Your task to perform on an android device: allow cookies in the chrome app Image 0: 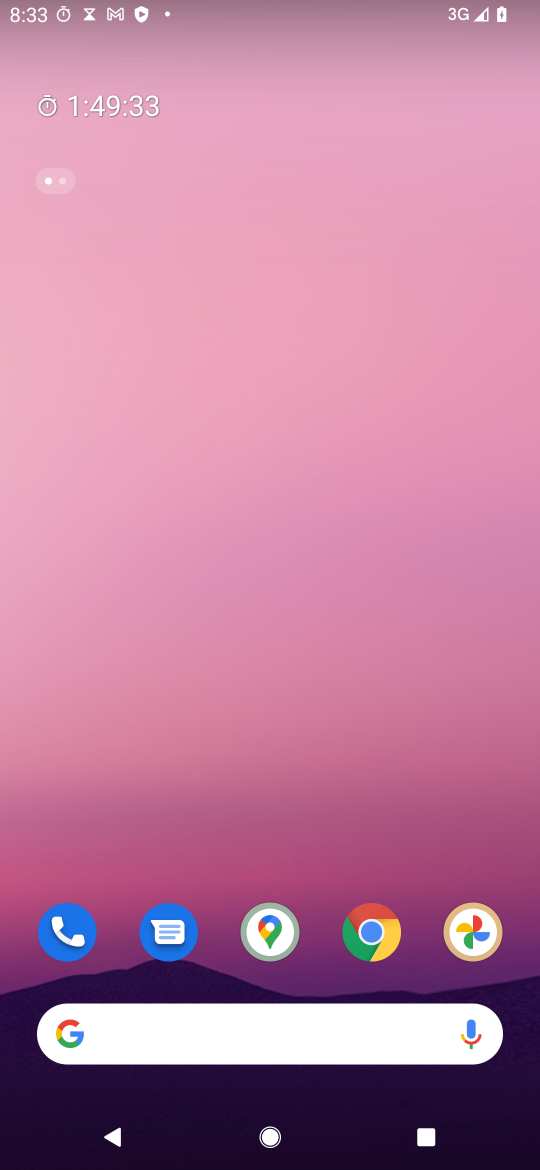
Step 0: drag from (318, 916) to (437, 110)
Your task to perform on an android device: allow cookies in the chrome app Image 1: 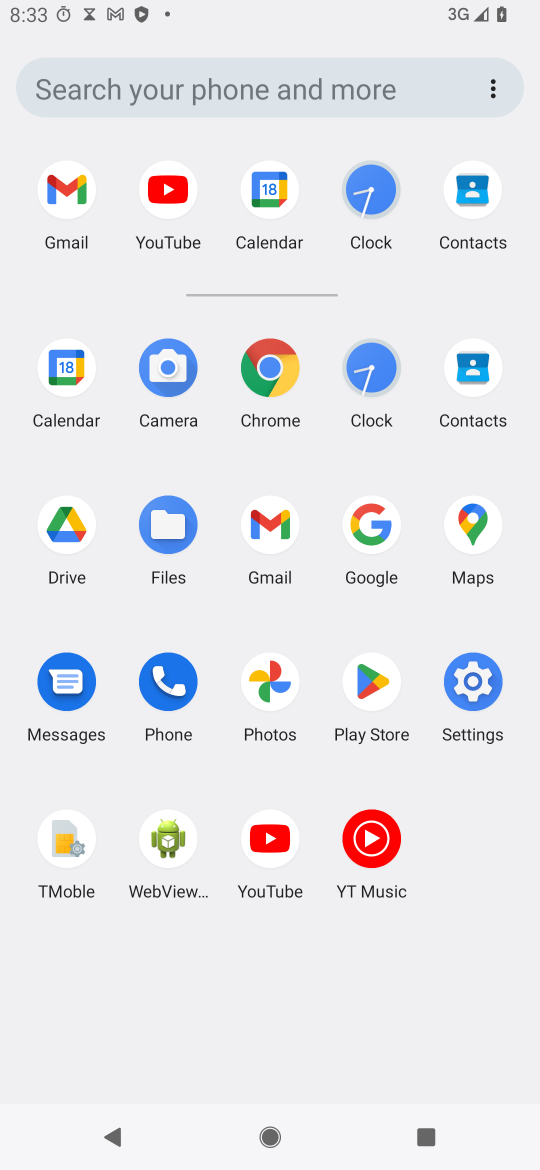
Step 1: click (253, 375)
Your task to perform on an android device: allow cookies in the chrome app Image 2: 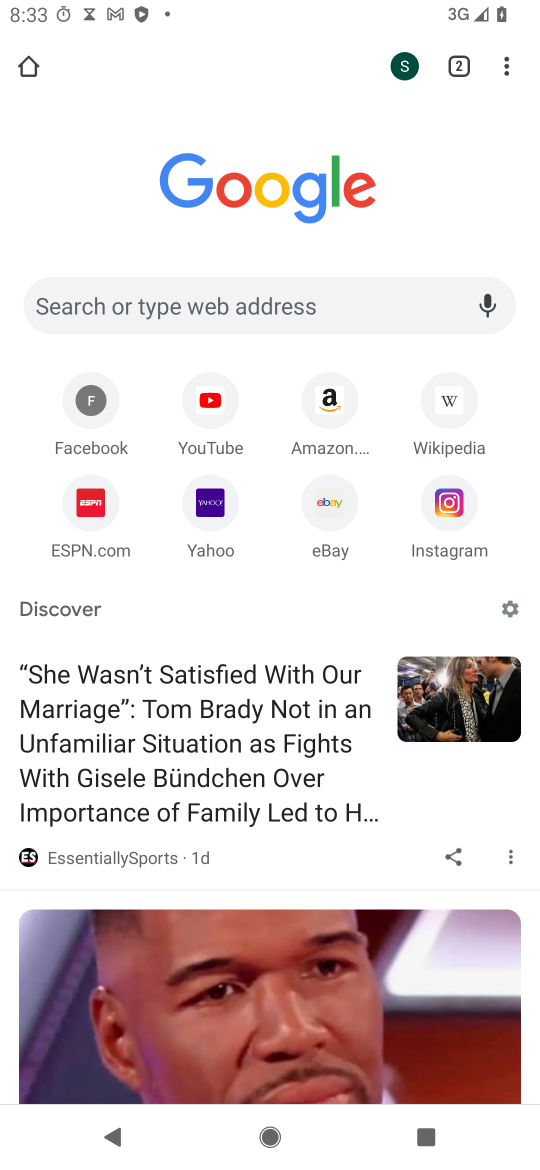
Step 2: drag from (498, 54) to (309, 645)
Your task to perform on an android device: allow cookies in the chrome app Image 3: 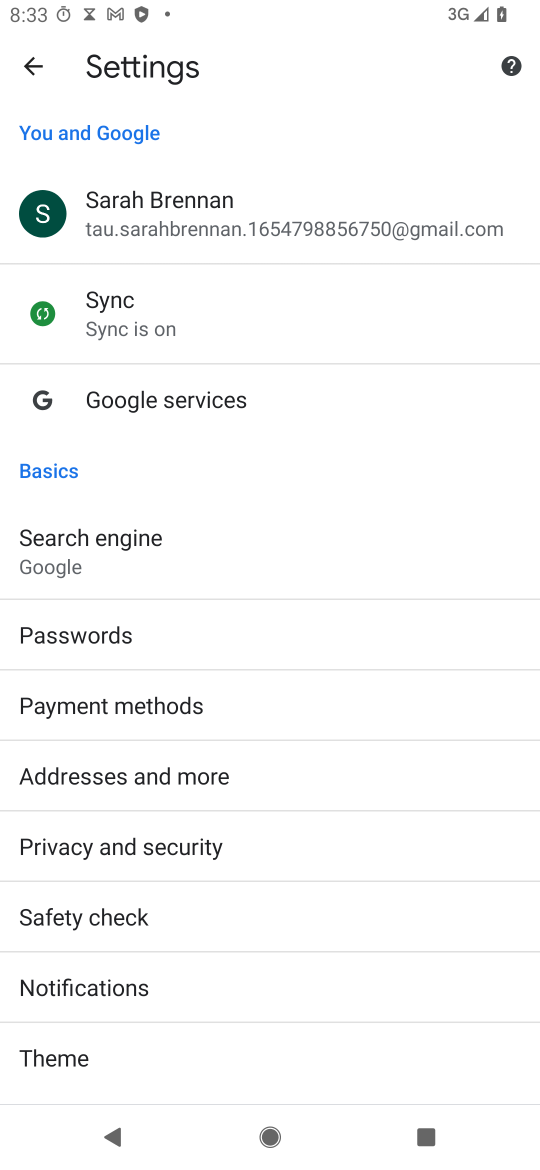
Step 3: drag from (204, 891) to (193, 227)
Your task to perform on an android device: allow cookies in the chrome app Image 4: 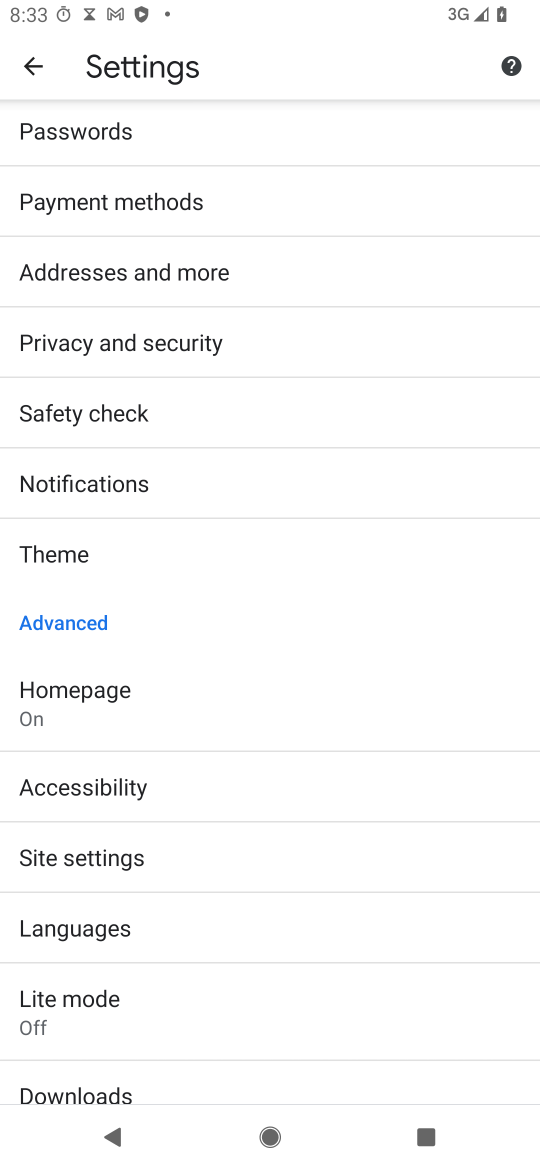
Step 4: drag from (31, 905) to (261, 732)
Your task to perform on an android device: allow cookies in the chrome app Image 5: 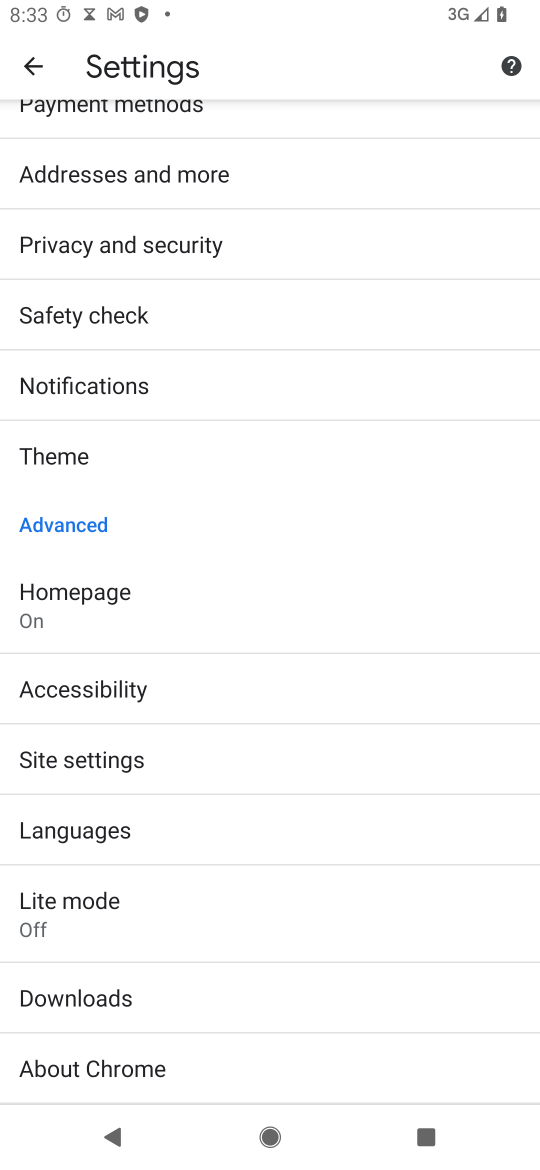
Step 5: click (70, 752)
Your task to perform on an android device: allow cookies in the chrome app Image 6: 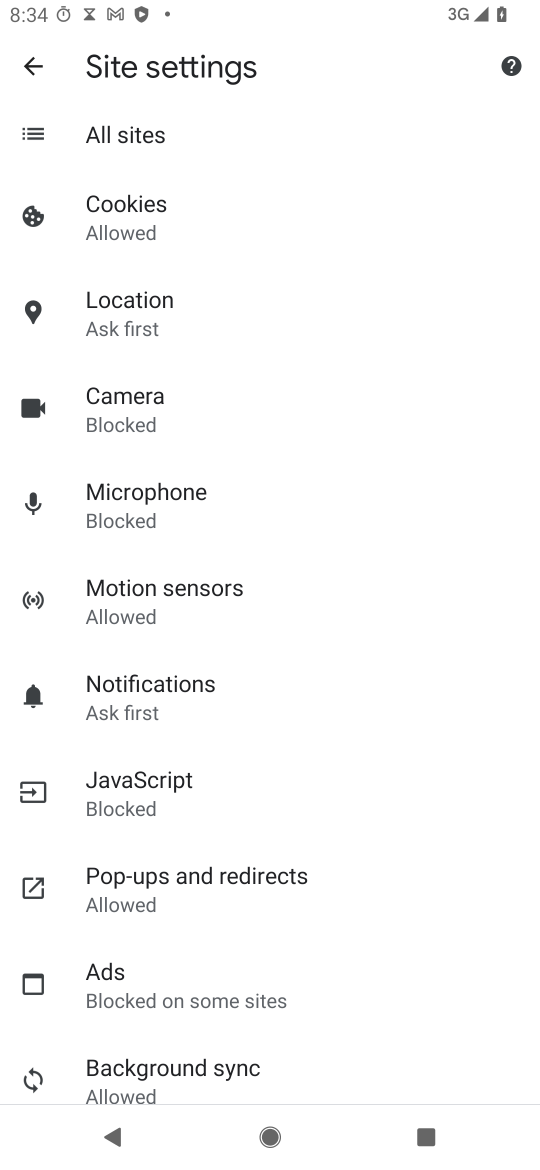
Step 6: click (143, 217)
Your task to perform on an android device: allow cookies in the chrome app Image 7: 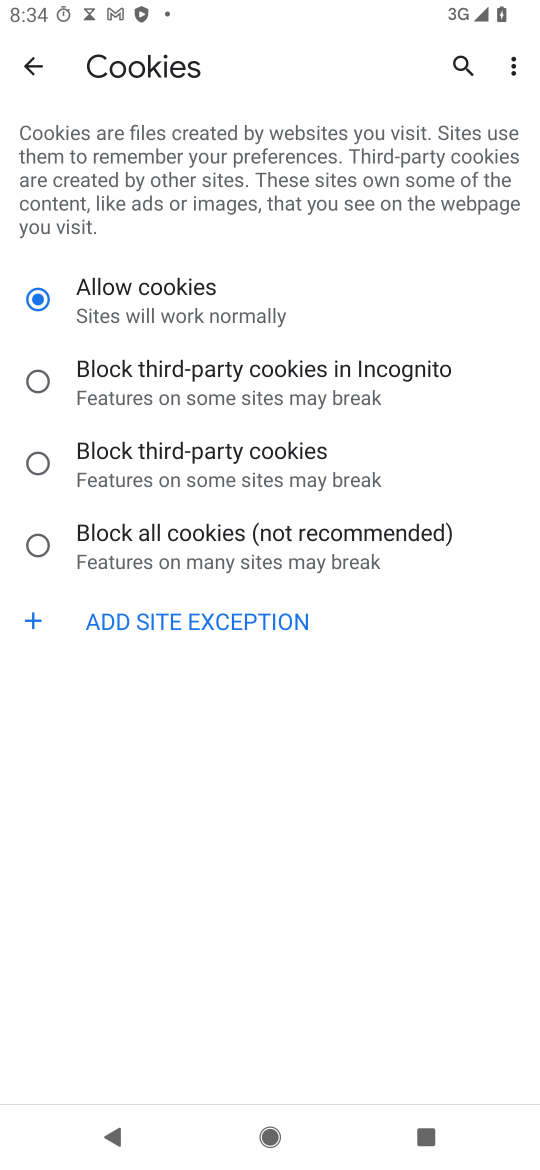
Step 7: task complete